Your task to perform on an android device: Open calendar and show me the second week of next month Image 0: 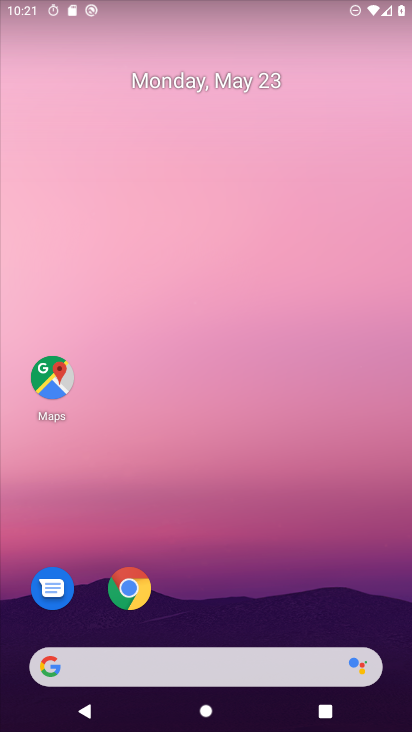
Step 0: drag from (385, 690) to (397, 143)
Your task to perform on an android device: Open calendar and show me the second week of next month Image 1: 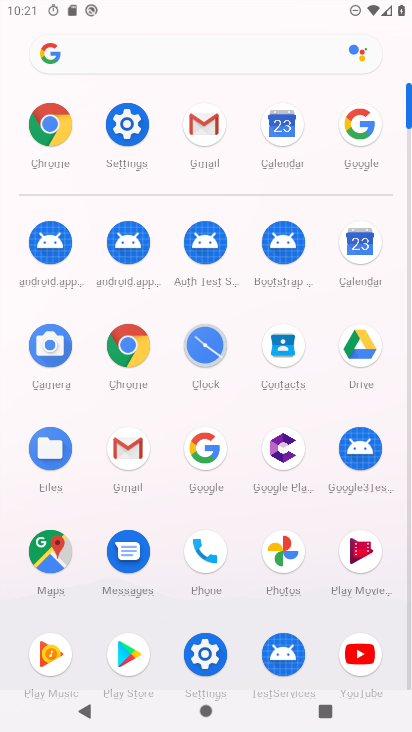
Step 1: click (361, 249)
Your task to perform on an android device: Open calendar and show me the second week of next month Image 2: 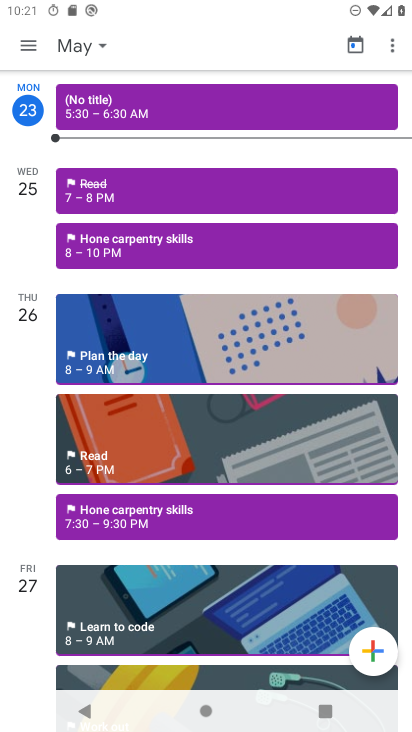
Step 2: click (388, 42)
Your task to perform on an android device: Open calendar and show me the second week of next month Image 3: 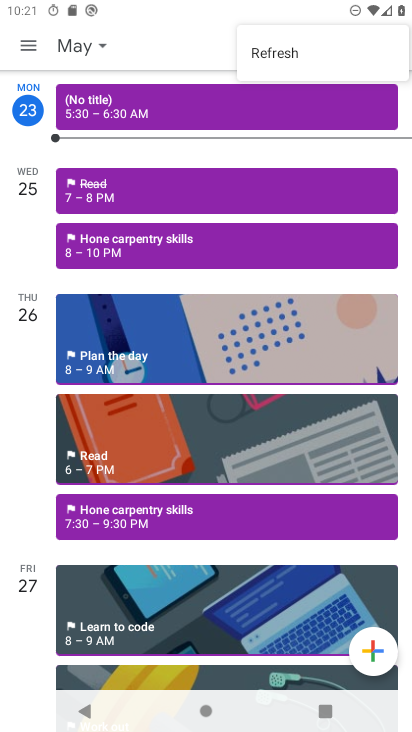
Step 3: click (164, 30)
Your task to perform on an android device: Open calendar and show me the second week of next month Image 4: 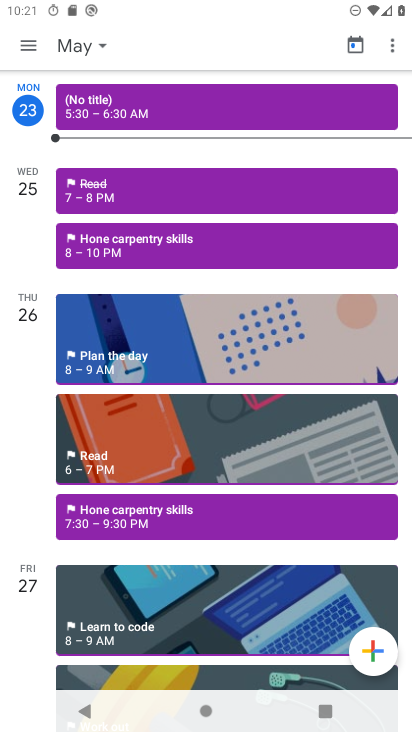
Step 4: click (95, 43)
Your task to perform on an android device: Open calendar and show me the second week of next month Image 5: 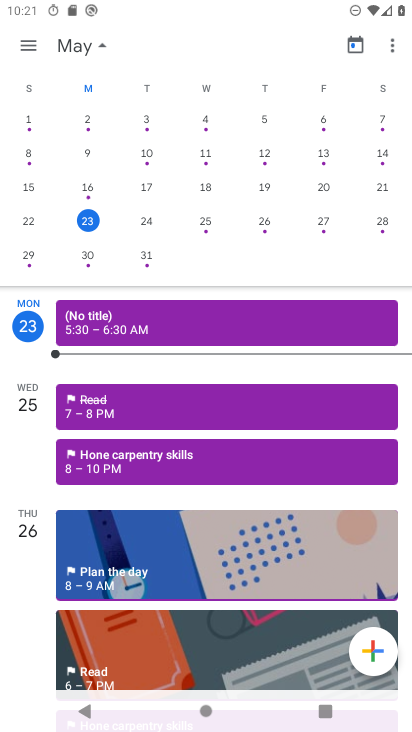
Step 5: drag from (398, 138) to (94, 86)
Your task to perform on an android device: Open calendar and show me the second week of next month Image 6: 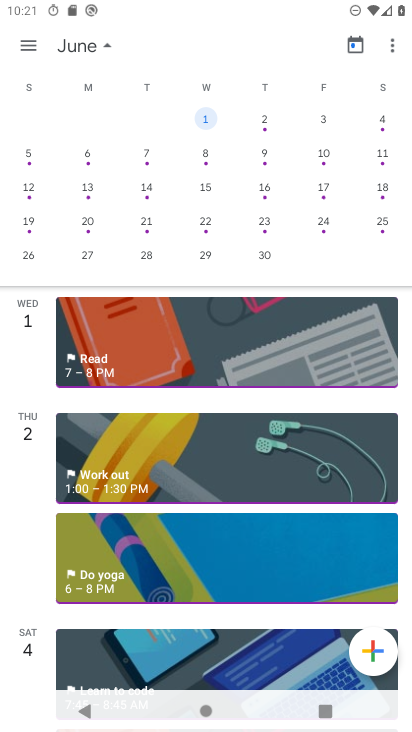
Step 6: click (264, 149)
Your task to perform on an android device: Open calendar and show me the second week of next month Image 7: 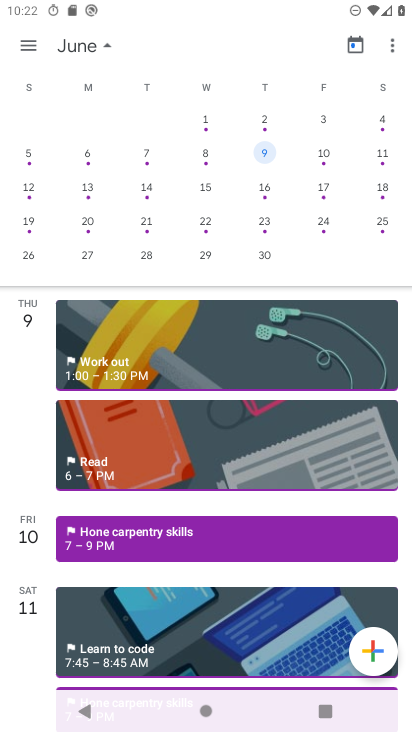
Step 7: task complete